Your task to perform on an android device: Open Chrome and go to the settings page Image 0: 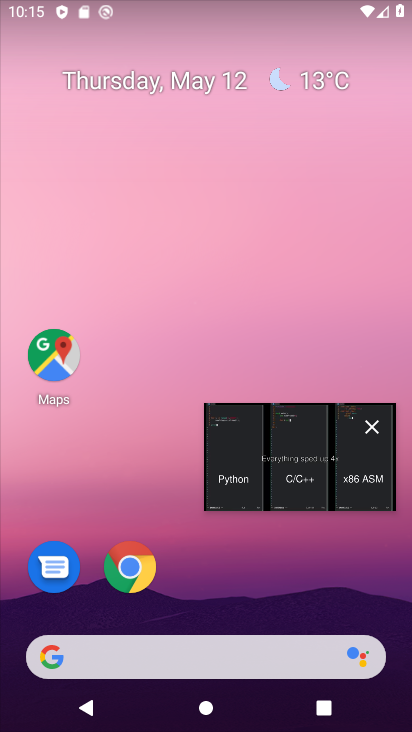
Step 0: click (374, 423)
Your task to perform on an android device: Open Chrome and go to the settings page Image 1: 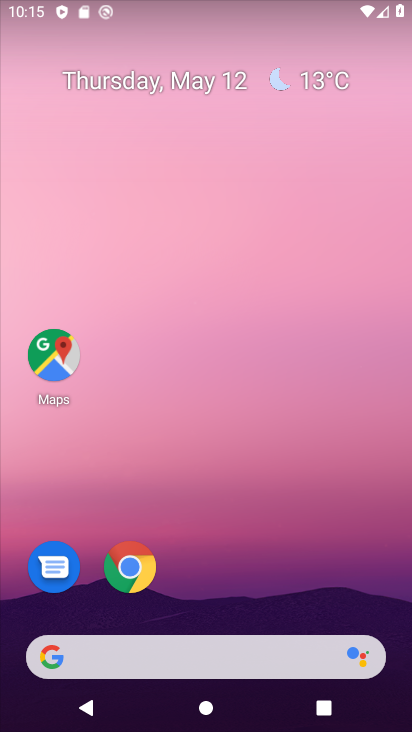
Step 1: click (125, 581)
Your task to perform on an android device: Open Chrome and go to the settings page Image 2: 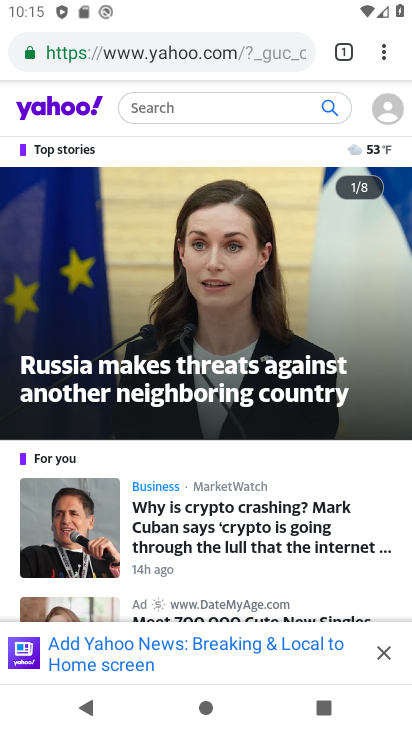
Step 2: click (389, 56)
Your task to perform on an android device: Open Chrome and go to the settings page Image 3: 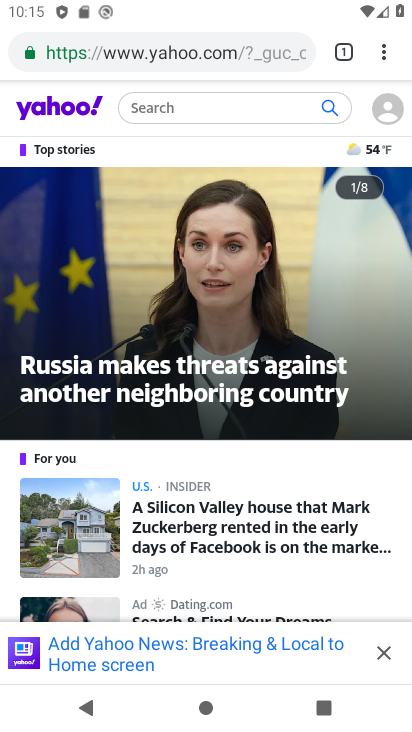
Step 3: task complete